Your task to perform on an android device: turn on showing notifications on the lock screen Image 0: 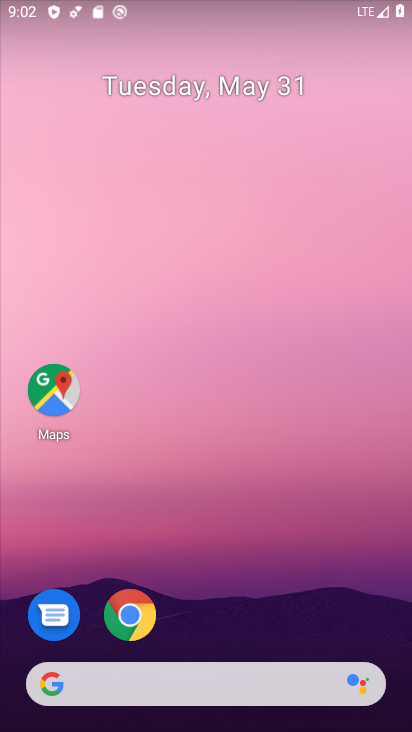
Step 0: drag from (170, 666) to (241, 153)
Your task to perform on an android device: turn on showing notifications on the lock screen Image 1: 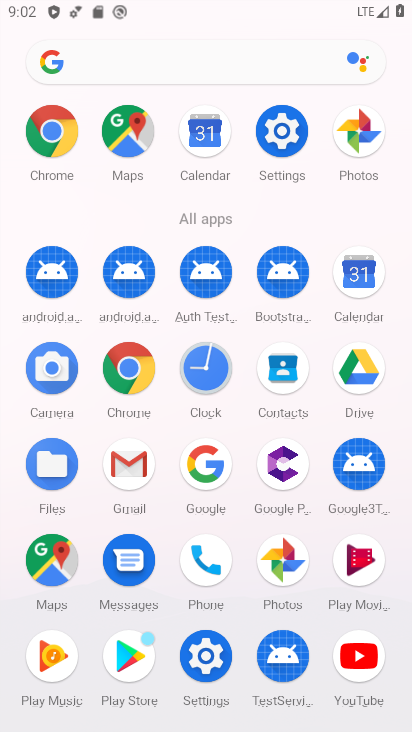
Step 1: click (285, 135)
Your task to perform on an android device: turn on showing notifications on the lock screen Image 2: 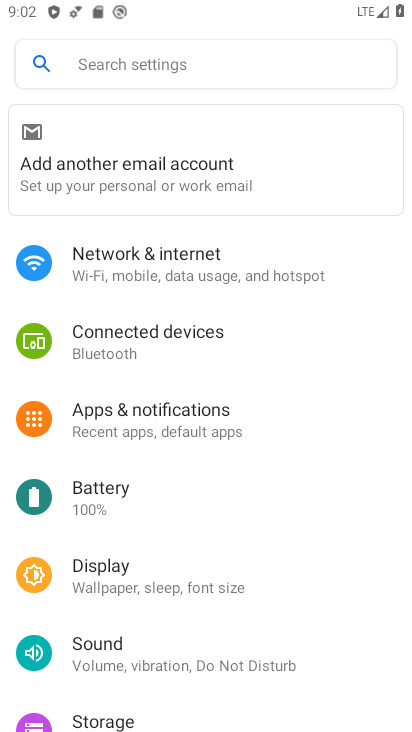
Step 2: click (184, 413)
Your task to perform on an android device: turn on showing notifications on the lock screen Image 3: 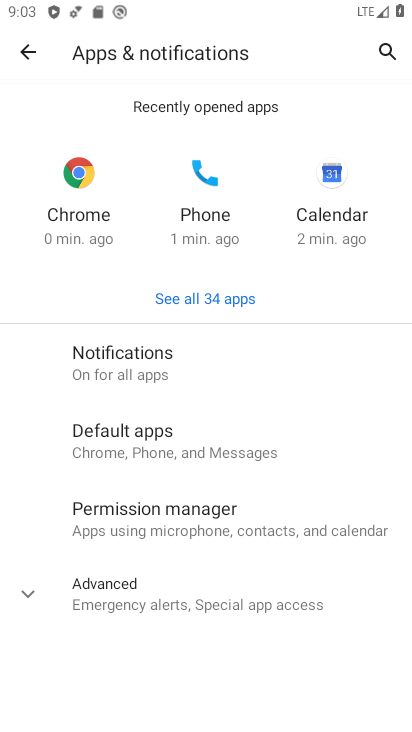
Step 3: click (179, 359)
Your task to perform on an android device: turn on showing notifications on the lock screen Image 4: 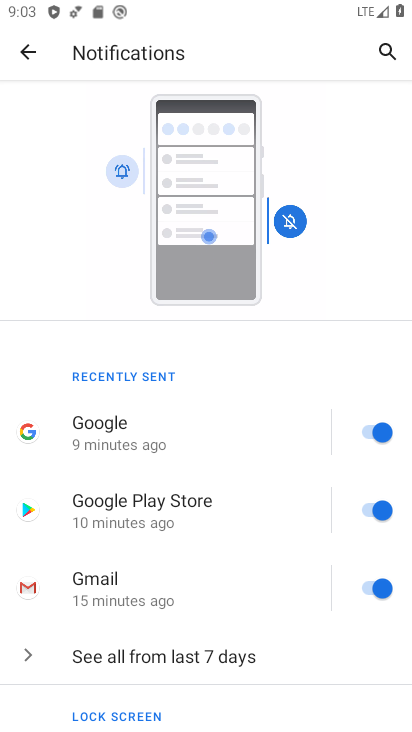
Step 4: drag from (173, 629) to (278, 75)
Your task to perform on an android device: turn on showing notifications on the lock screen Image 5: 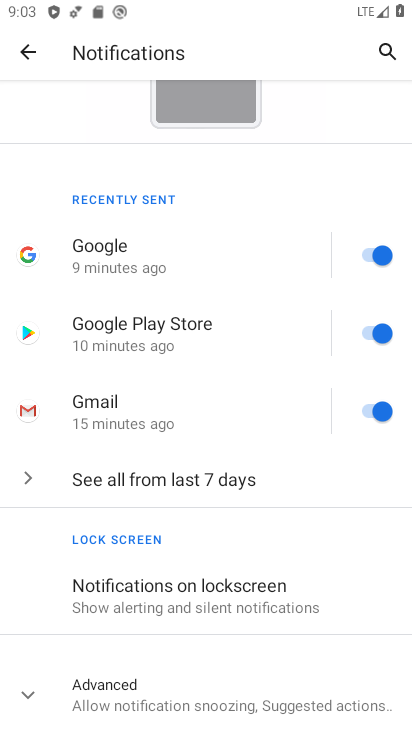
Step 5: drag from (177, 534) to (207, 322)
Your task to perform on an android device: turn on showing notifications on the lock screen Image 6: 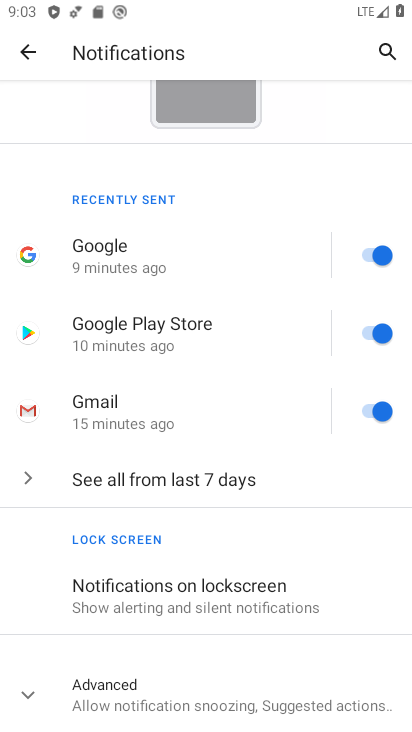
Step 6: click (134, 596)
Your task to perform on an android device: turn on showing notifications on the lock screen Image 7: 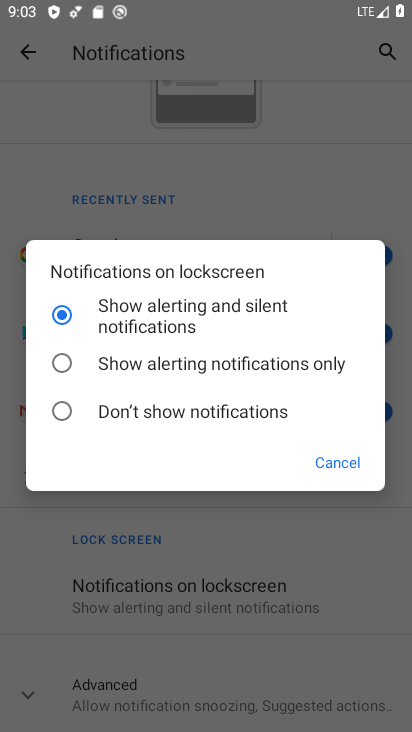
Step 7: task complete